Your task to perform on an android device: Open Amazon Image 0: 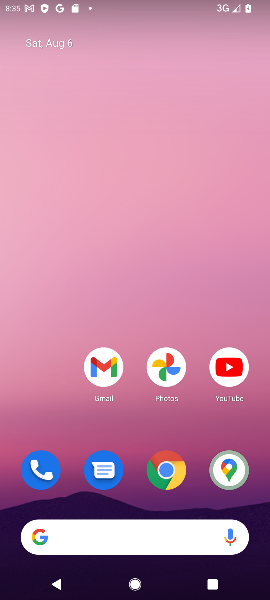
Step 0: drag from (167, 531) to (170, 163)
Your task to perform on an android device: Open Amazon Image 1: 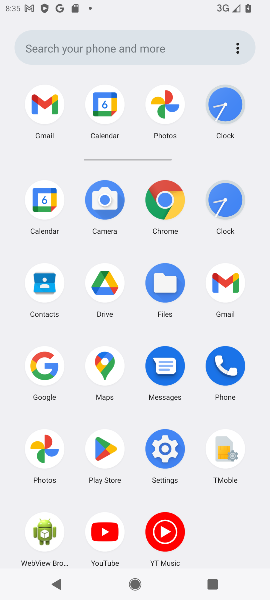
Step 1: click (177, 210)
Your task to perform on an android device: Open Amazon Image 2: 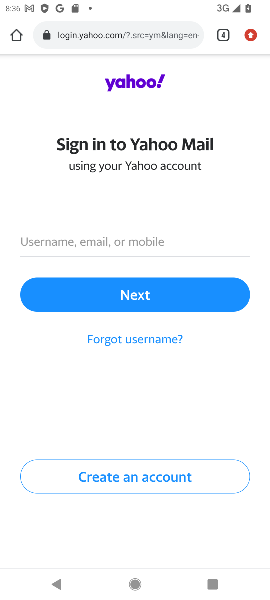
Step 2: drag from (221, 36) to (215, 251)
Your task to perform on an android device: Open Amazon Image 3: 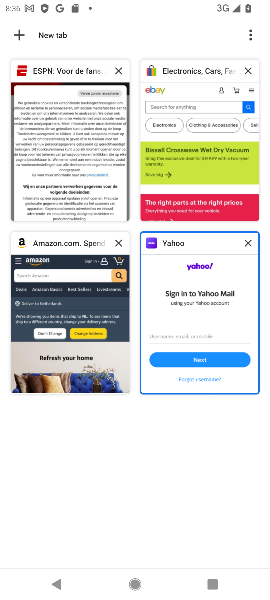
Step 3: click (86, 282)
Your task to perform on an android device: Open Amazon Image 4: 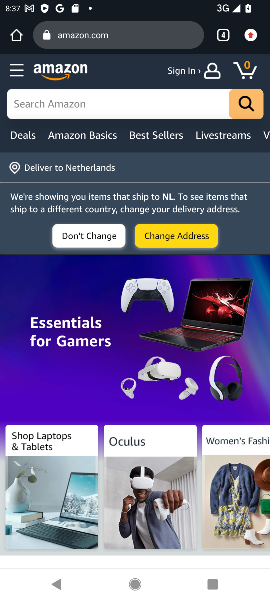
Step 4: task complete